Your task to perform on an android device: Open internet settings Image 0: 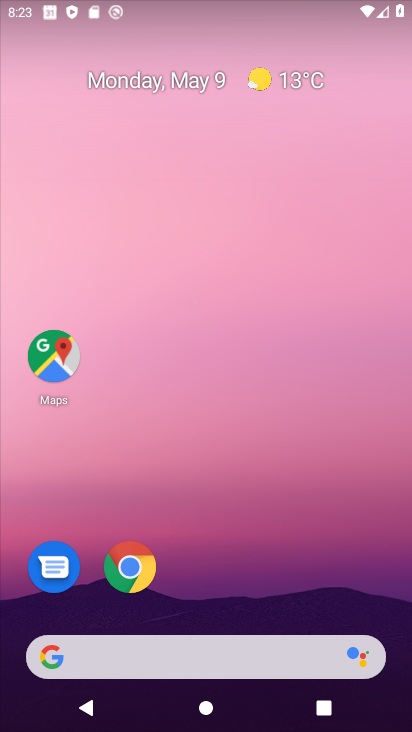
Step 0: drag from (301, 541) to (283, 7)
Your task to perform on an android device: Open internet settings Image 1: 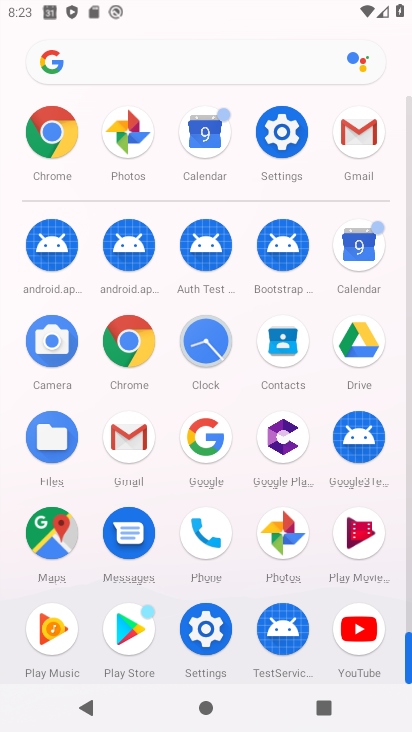
Step 1: click (279, 121)
Your task to perform on an android device: Open internet settings Image 2: 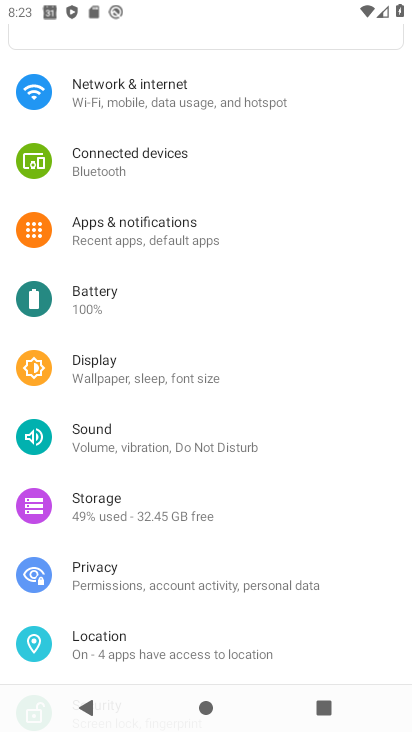
Step 2: click (219, 97)
Your task to perform on an android device: Open internet settings Image 3: 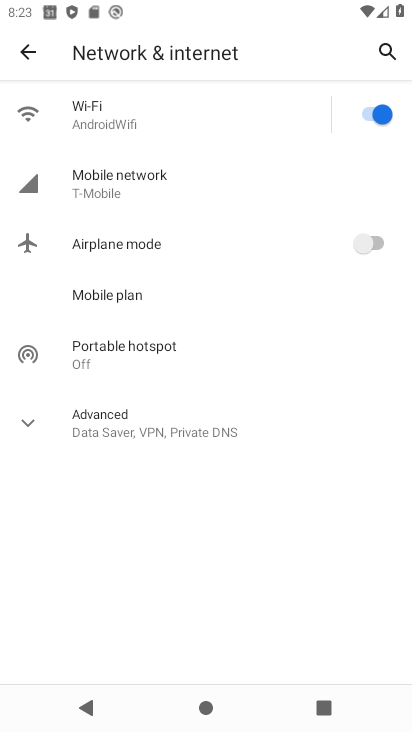
Step 3: task complete